Your task to perform on an android device: Open Yahoo.com Image 0: 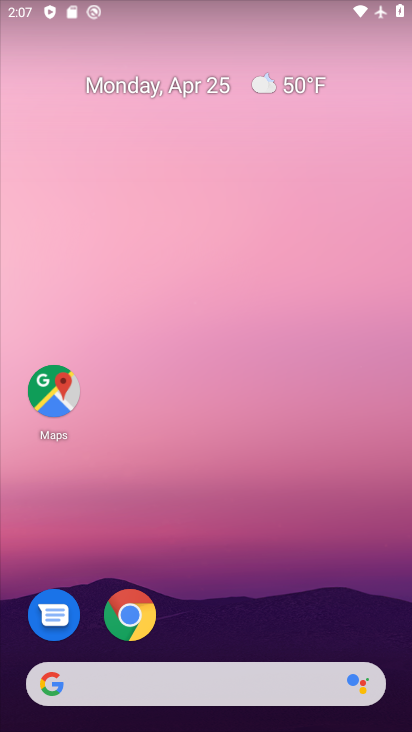
Step 0: click (135, 612)
Your task to perform on an android device: Open Yahoo.com Image 1: 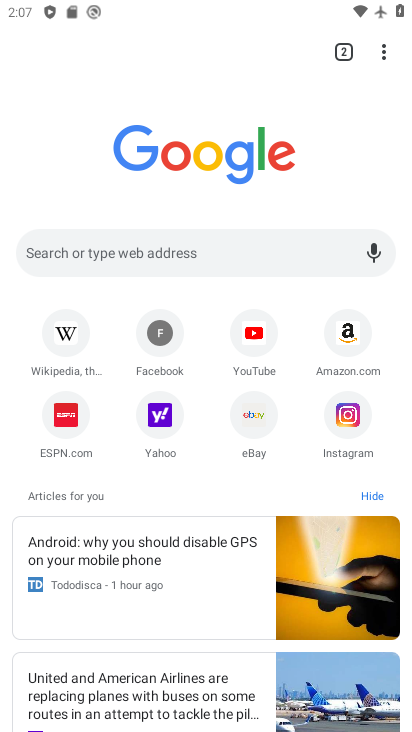
Step 1: click (102, 257)
Your task to perform on an android device: Open Yahoo.com Image 2: 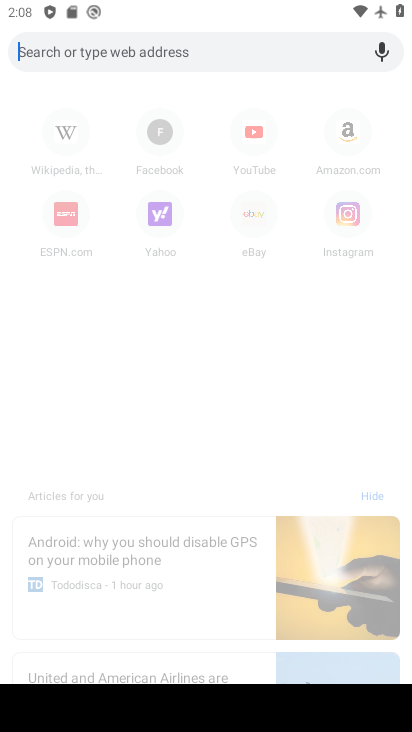
Step 2: type "Yahoo.com"
Your task to perform on an android device: Open Yahoo.com Image 3: 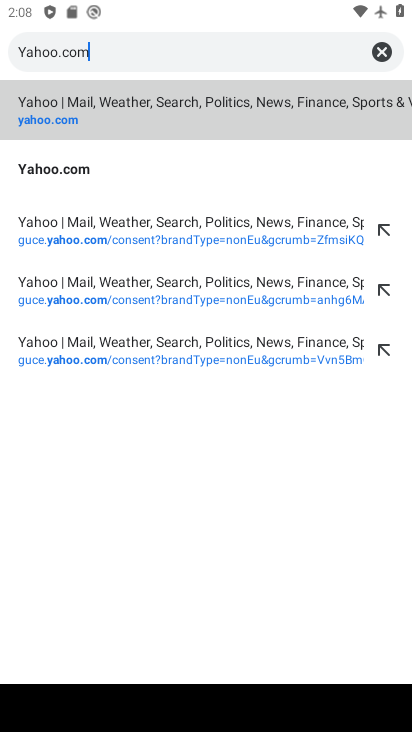
Step 3: type ""
Your task to perform on an android device: Open Yahoo.com Image 4: 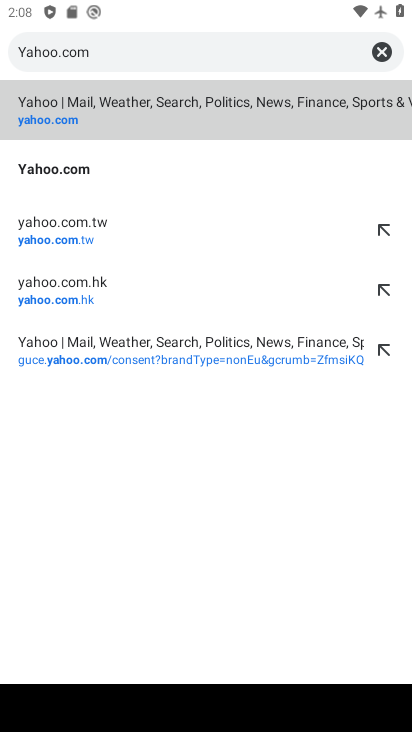
Step 4: click (96, 169)
Your task to perform on an android device: Open Yahoo.com Image 5: 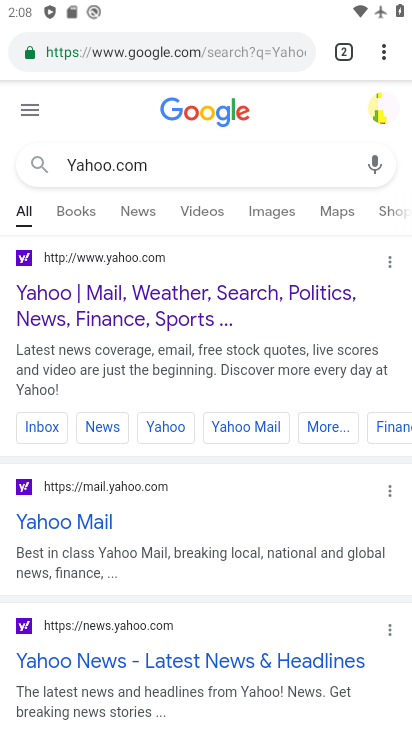
Step 5: click (106, 302)
Your task to perform on an android device: Open Yahoo.com Image 6: 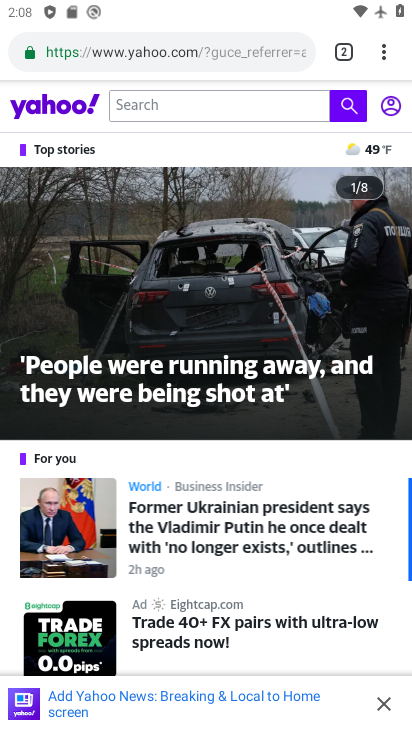
Step 6: task complete